Your task to perform on an android device: refresh tabs in the chrome app Image 0: 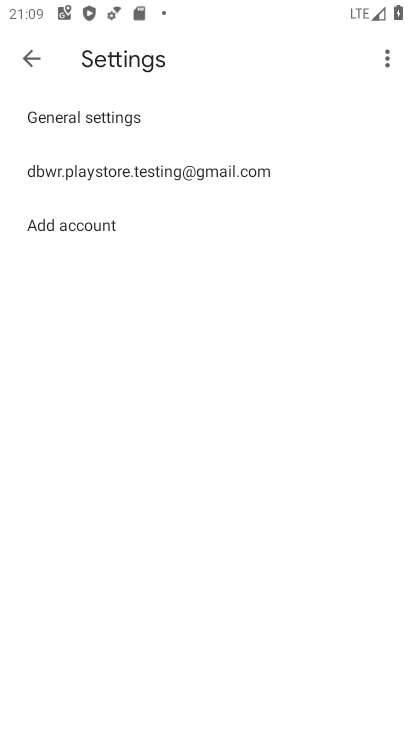
Step 0: press home button
Your task to perform on an android device: refresh tabs in the chrome app Image 1: 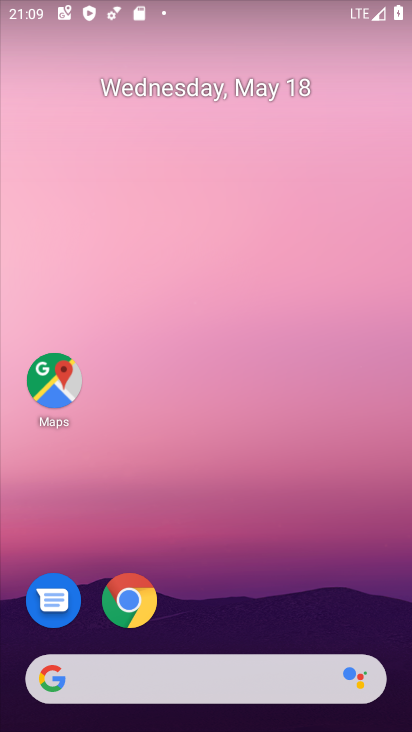
Step 1: click (130, 604)
Your task to perform on an android device: refresh tabs in the chrome app Image 2: 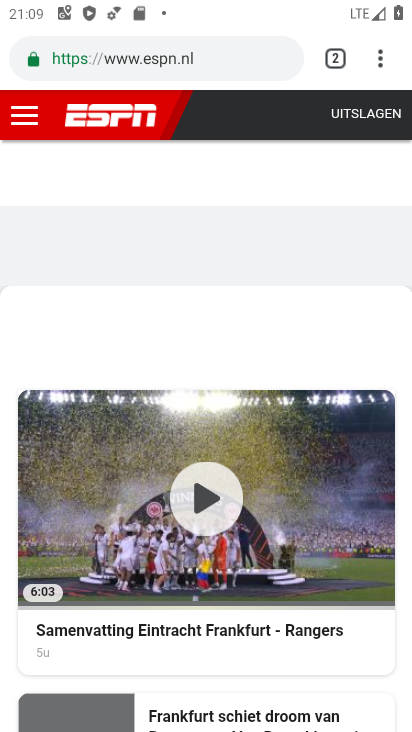
Step 2: click (386, 60)
Your task to perform on an android device: refresh tabs in the chrome app Image 3: 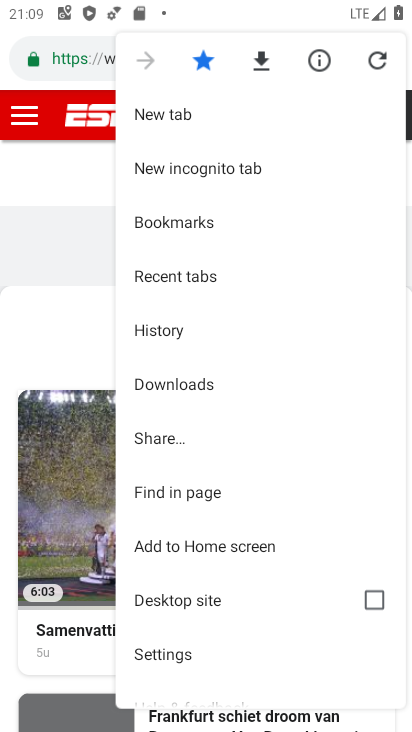
Step 3: click (367, 61)
Your task to perform on an android device: refresh tabs in the chrome app Image 4: 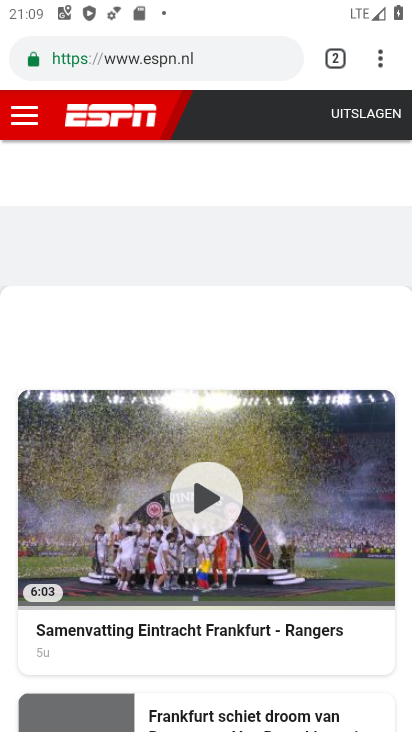
Step 4: task complete